Your task to perform on an android device: Set the phone to "Do not disturb". Image 0: 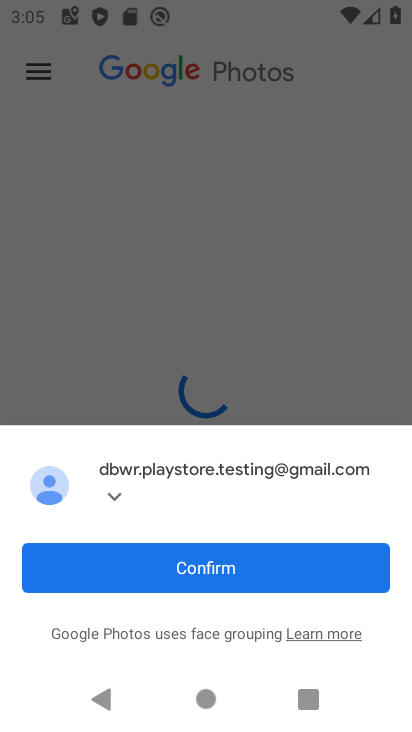
Step 0: press home button
Your task to perform on an android device: Set the phone to "Do not disturb". Image 1: 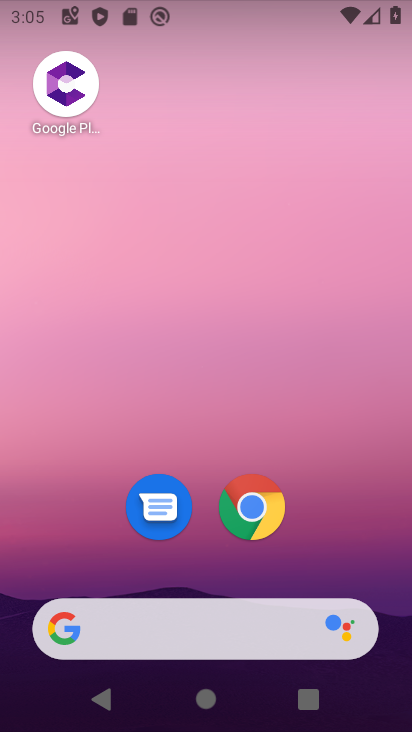
Step 1: drag from (225, 31) to (154, 610)
Your task to perform on an android device: Set the phone to "Do not disturb". Image 2: 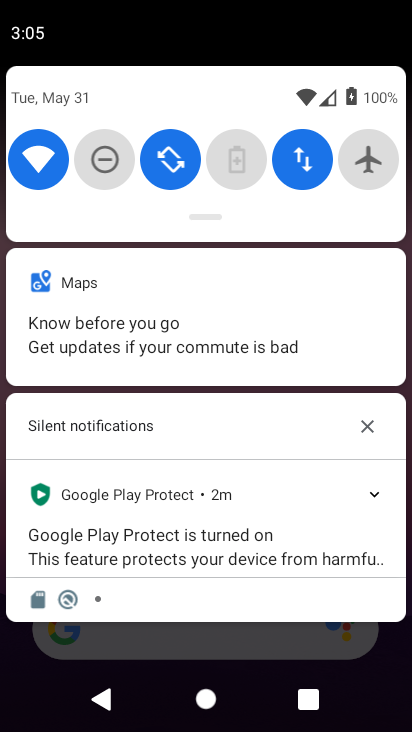
Step 2: click (102, 171)
Your task to perform on an android device: Set the phone to "Do not disturb". Image 3: 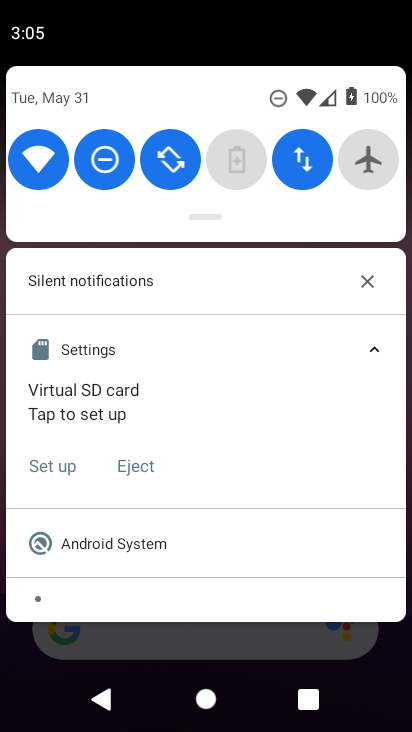
Step 3: task complete